Your task to perform on an android device: snooze an email in the gmail app Image 0: 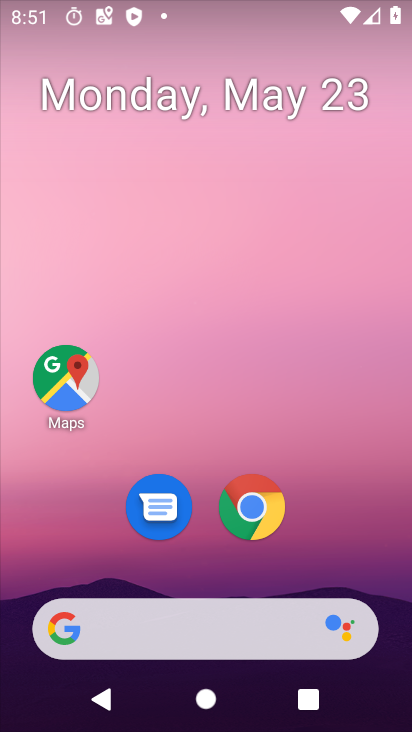
Step 0: drag from (394, 496) to (335, 0)
Your task to perform on an android device: snooze an email in the gmail app Image 1: 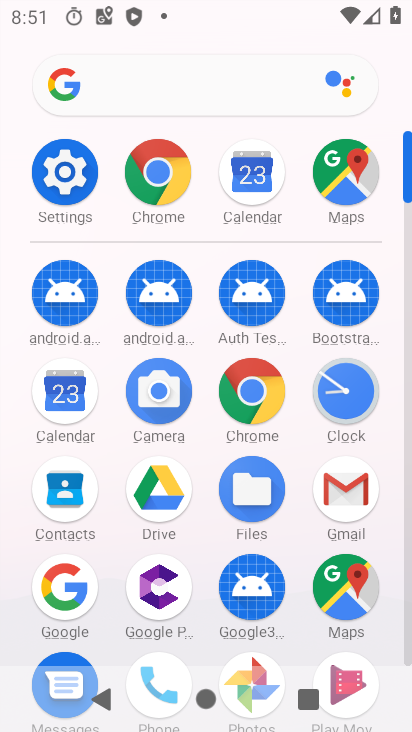
Step 1: click (341, 484)
Your task to perform on an android device: snooze an email in the gmail app Image 2: 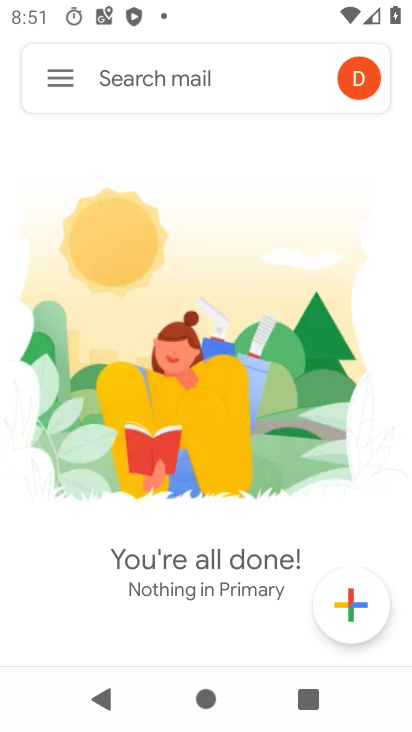
Step 2: click (62, 93)
Your task to perform on an android device: snooze an email in the gmail app Image 3: 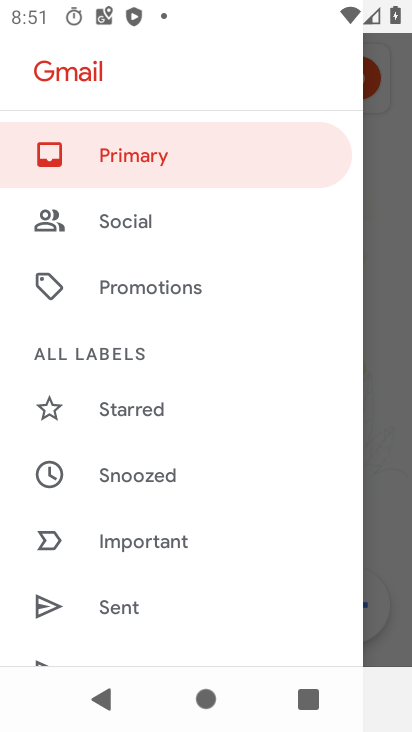
Step 3: click (63, 484)
Your task to perform on an android device: snooze an email in the gmail app Image 4: 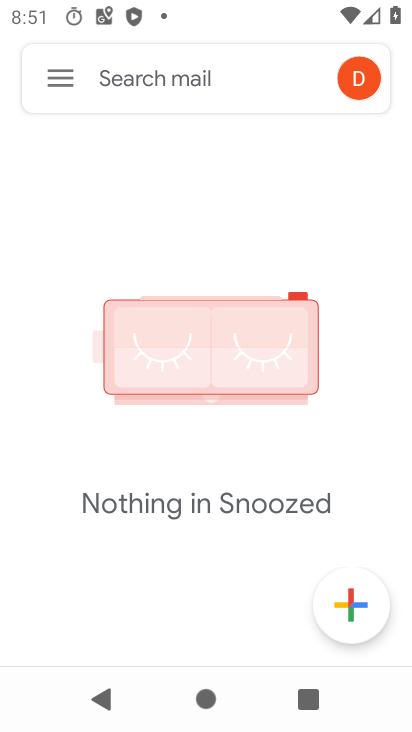
Step 4: task complete